Your task to perform on an android device: Search for macbook pro 15 inch on bestbuy, select the first entry, and add it to the cart. Image 0: 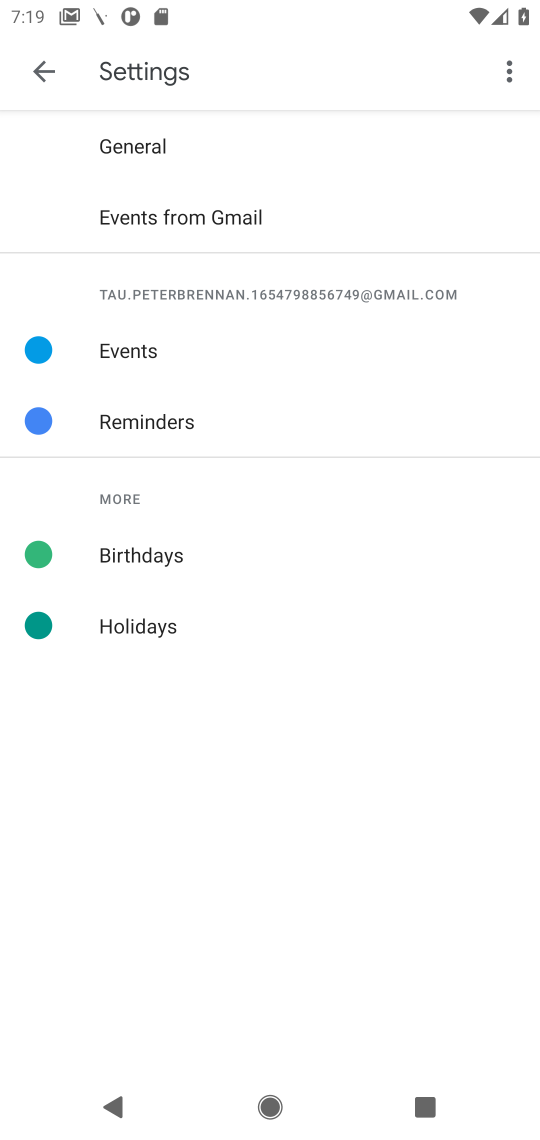
Step 0: press home button
Your task to perform on an android device: Search for macbook pro 15 inch on bestbuy, select the first entry, and add it to the cart. Image 1: 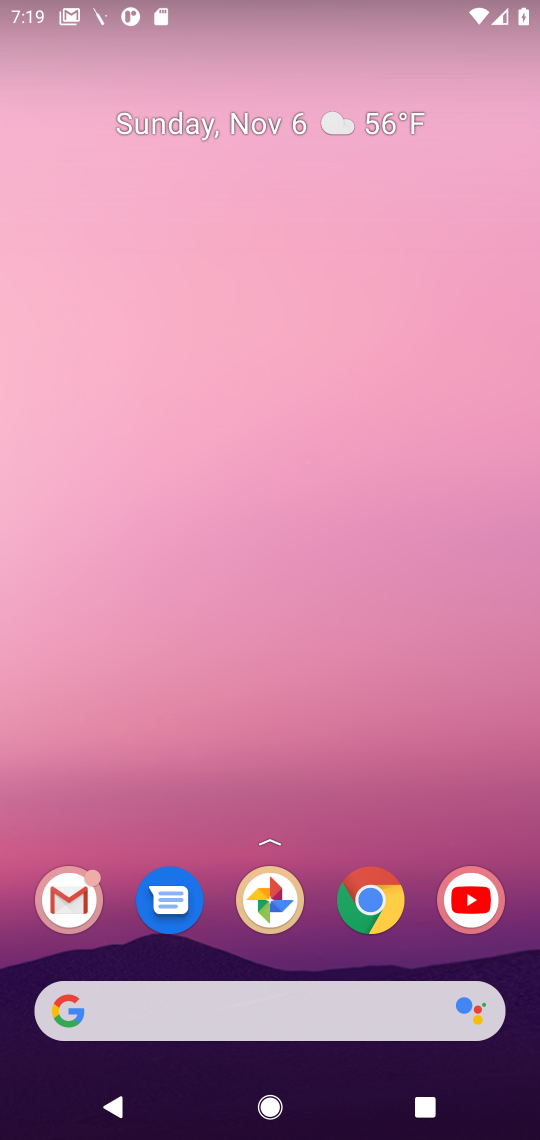
Step 1: drag from (302, 966) to (362, 155)
Your task to perform on an android device: Search for macbook pro 15 inch on bestbuy, select the first entry, and add it to the cart. Image 2: 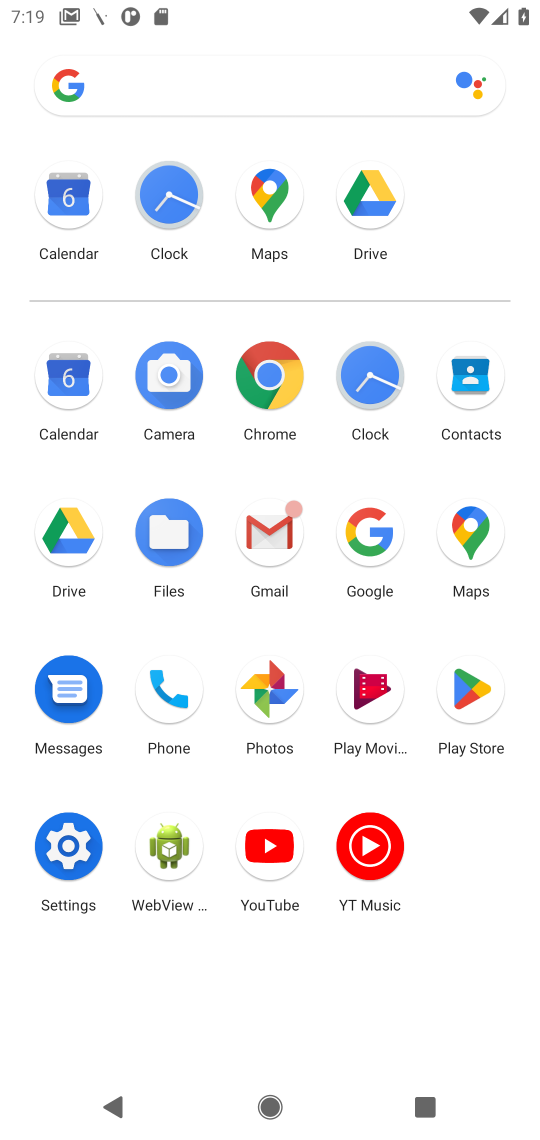
Step 2: click (269, 372)
Your task to perform on an android device: Search for macbook pro 15 inch on bestbuy, select the first entry, and add it to the cart. Image 3: 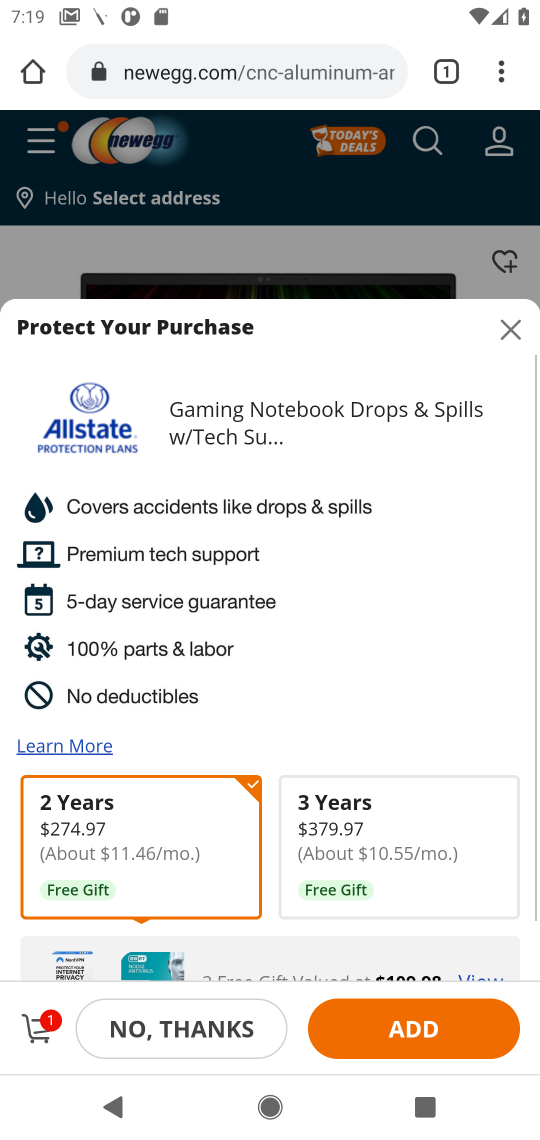
Step 3: click (334, 63)
Your task to perform on an android device: Search for macbook pro 15 inch on bestbuy, select the first entry, and add it to the cart. Image 4: 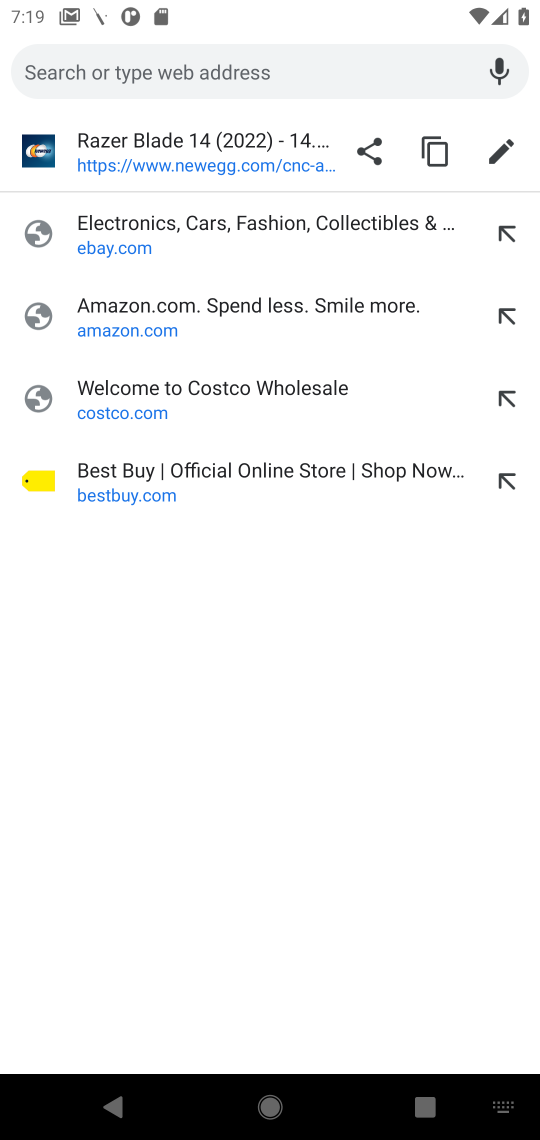
Step 4: type "bestbuy.com"
Your task to perform on an android device: Search for macbook pro 15 inch on bestbuy, select the first entry, and add it to the cart. Image 5: 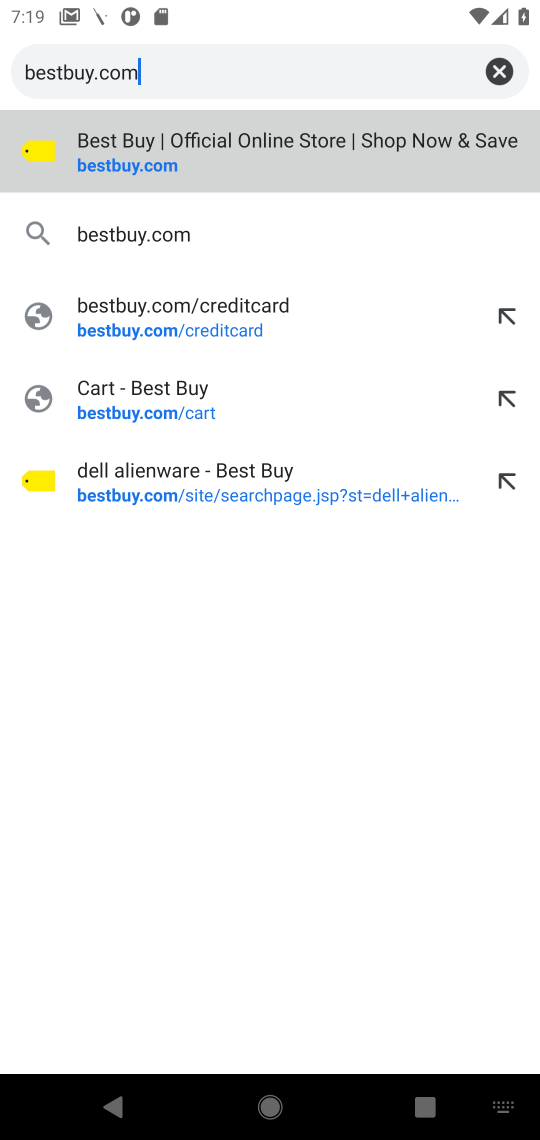
Step 5: press enter
Your task to perform on an android device: Search for macbook pro 15 inch on bestbuy, select the first entry, and add it to the cart. Image 6: 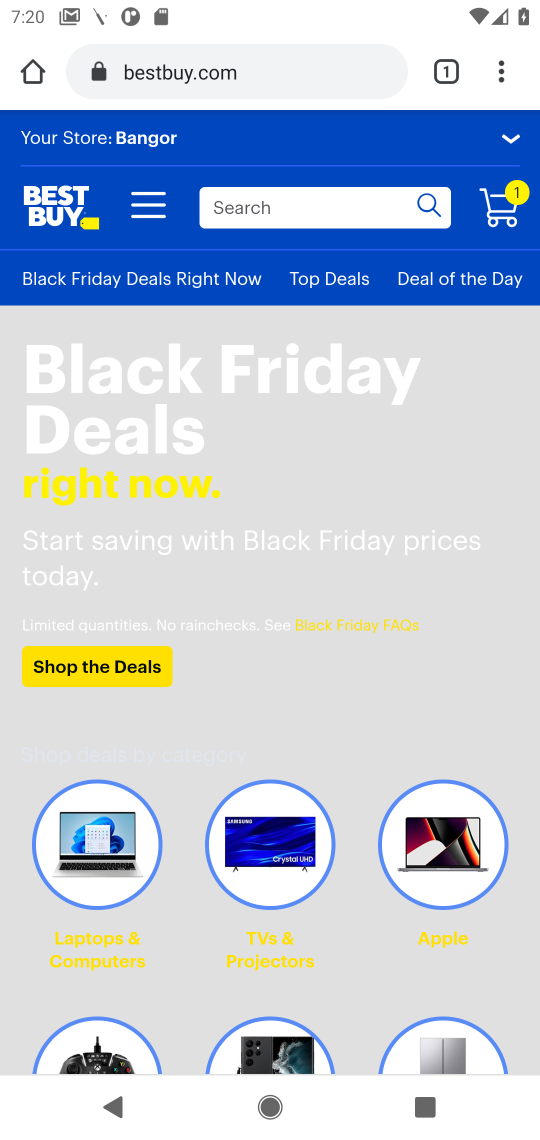
Step 6: click (373, 209)
Your task to perform on an android device: Search for macbook pro 15 inch on bestbuy, select the first entry, and add it to the cart. Image 7: 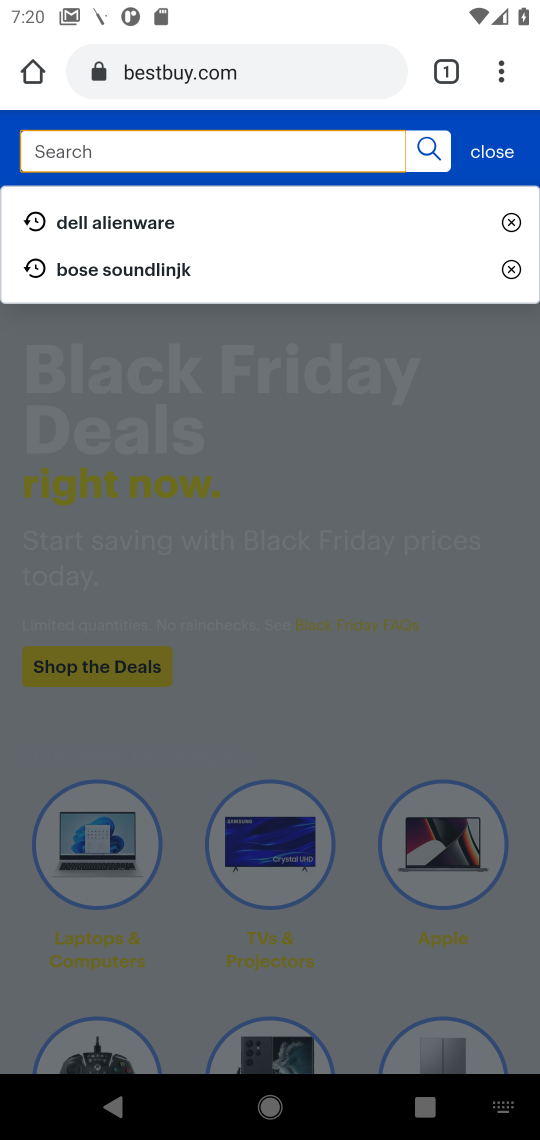
Step 7: type "macbook pro 15"
Your task to perform on an android device: Search for macbook pro 15 inch on bestbuy, select the first entry, and add it to the cart. Image 8: 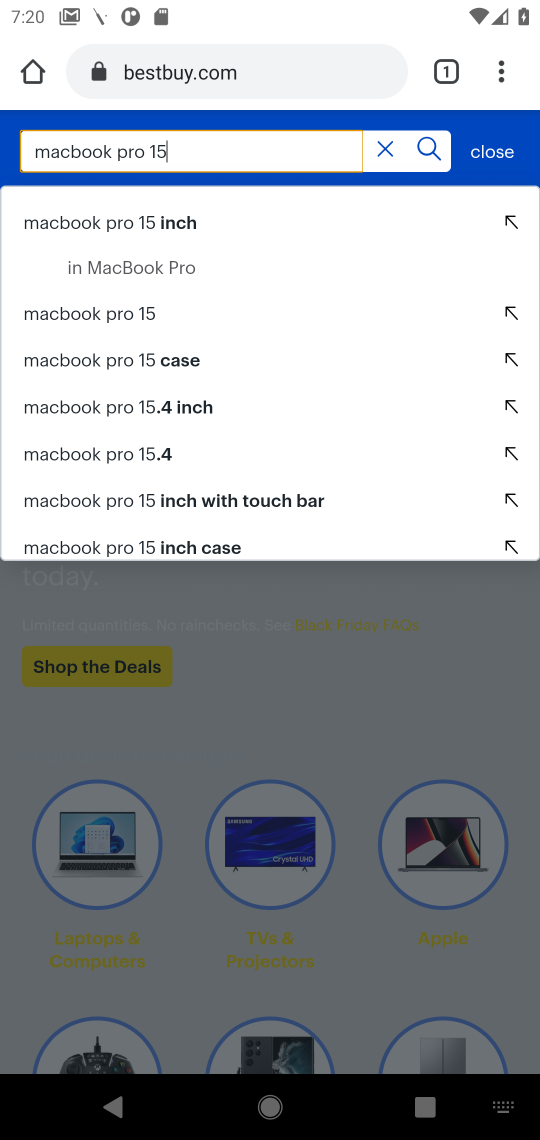
Step 8: press enter
Your task to perform on an android device: Search for macbook pro 15 inch on bestbuy, select the first entry, and add it to the cart. Image 9: 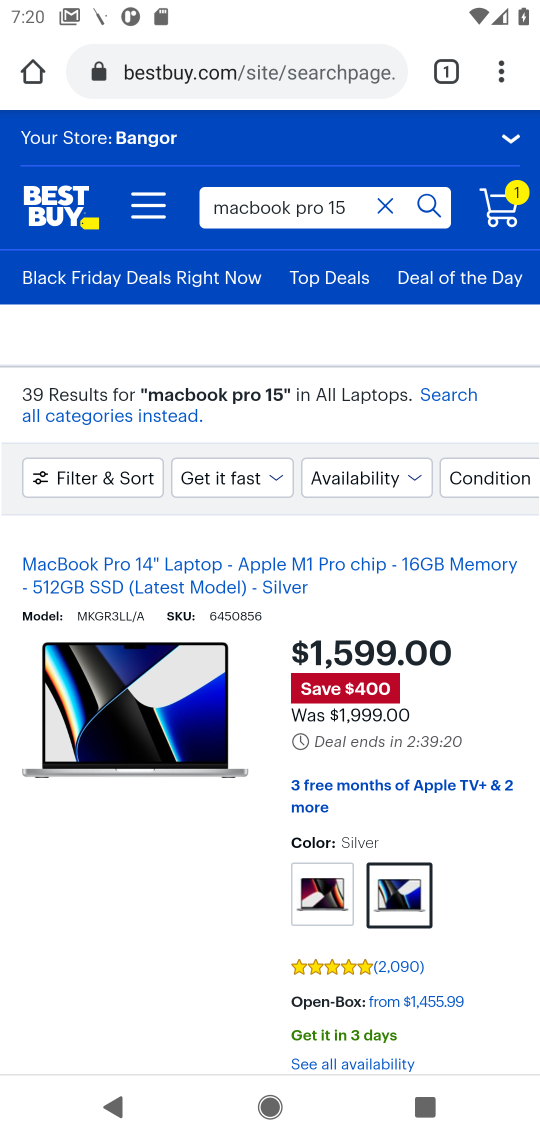
Step 9: drag from (362, 814) to (364, 85)
Your task to perform on an android device: Search for macbook pro 15 inch on bestbuy, select the first entry, and add it to the cart. Image 10: 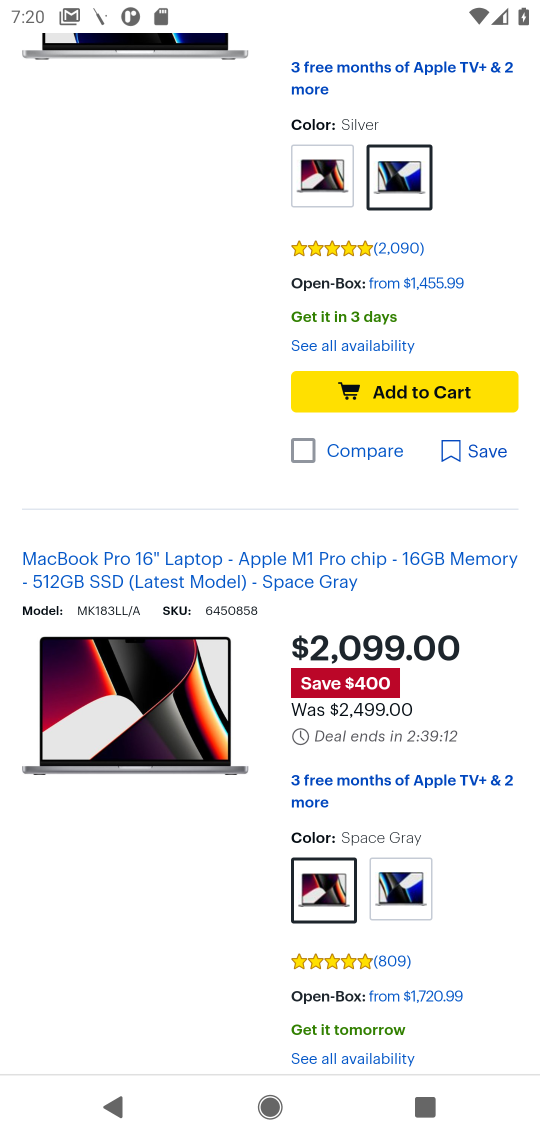
Step 10: drag from (325, 681) to (318, 183)
Your task to perform on an android device: Search for macbook pro 15 inch on bestbuy, select the first entry, and add it to the cart. Image 11: 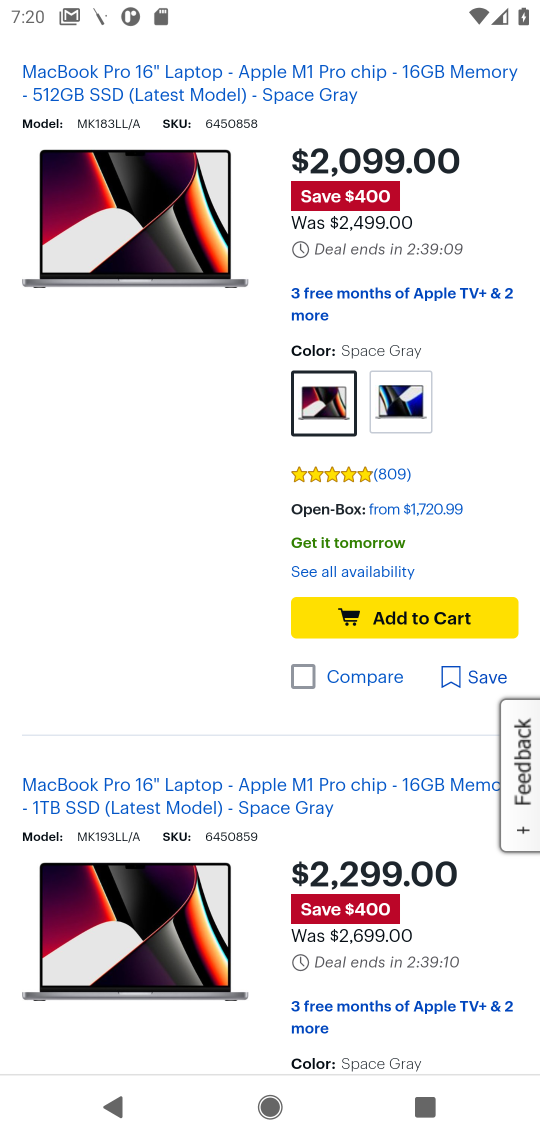
Step 11: drag from (312, 886) to (246, 323)
Your task to perform on an android device: Search for macbook pro 15 inch on bestbuy, select the first entry, and add it to the cart. Image 12: 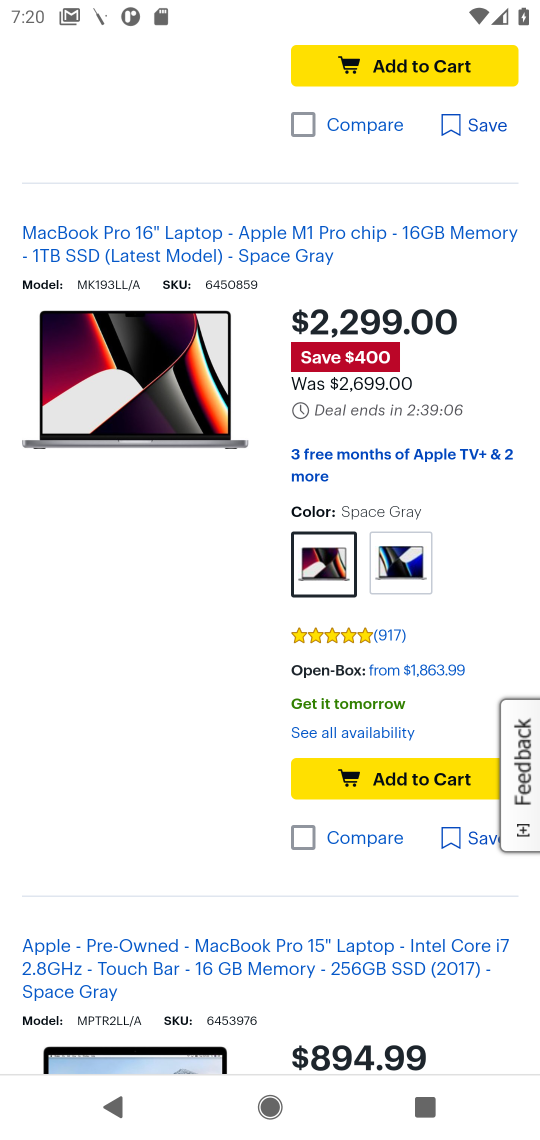
Step 12: drag from (400, 1010) to (345, 389)
Your task to perform on an android device: Search for macbook pro 15 inch on bestbuy, select the first entry, and add it to the cart. Image 13: 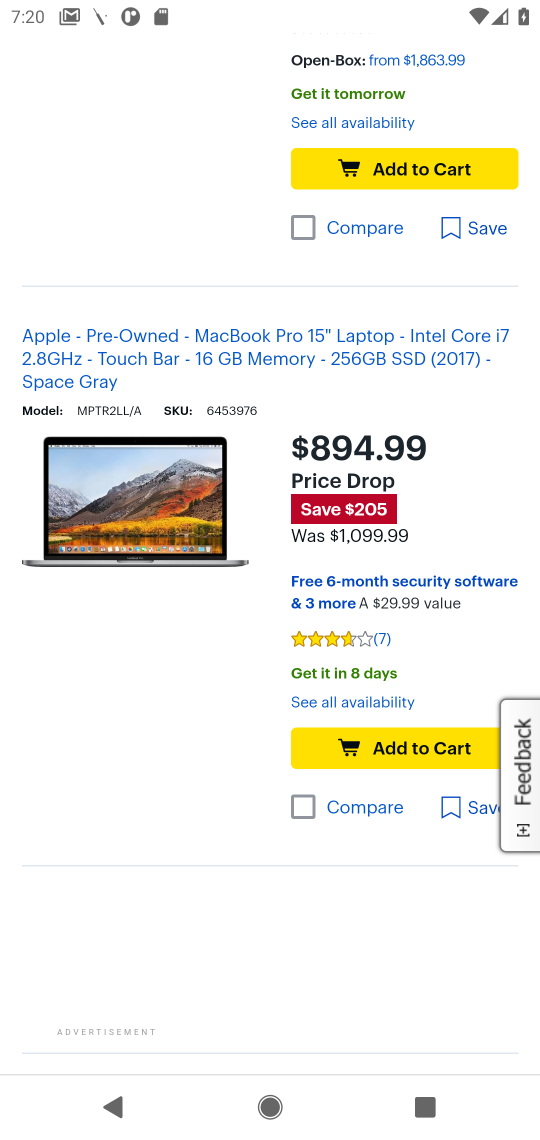
Step 13: click (405, 751)
Your task to perform on an android device: Search for macbook pro 15 inch on bestbuy, select the first entry, and add it to the cart. Image 14: 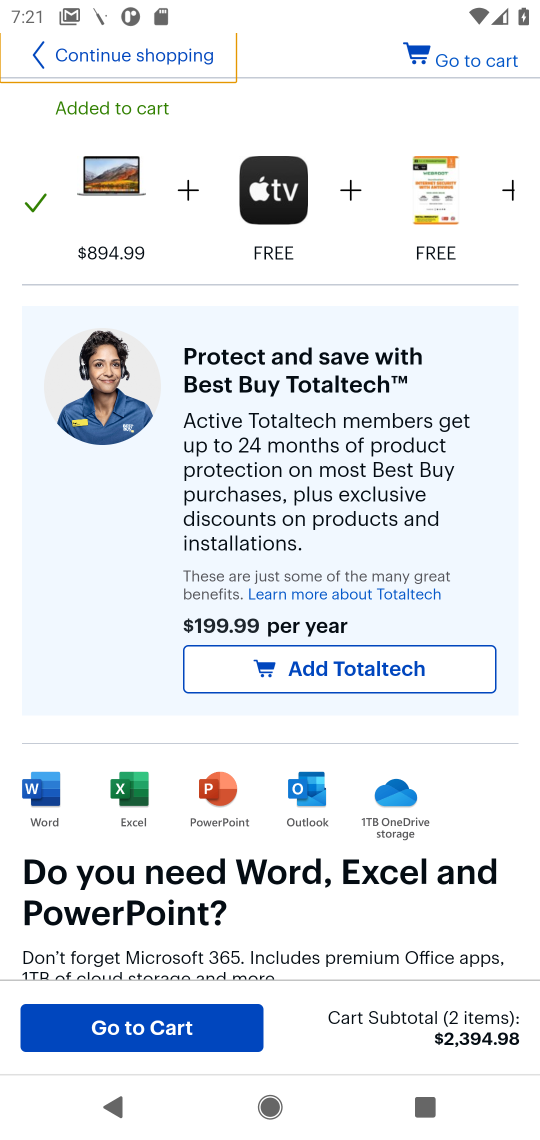
Step 14: task complete